Your task to perform on an android device: Open the calendar and show me this week's events Image 0: 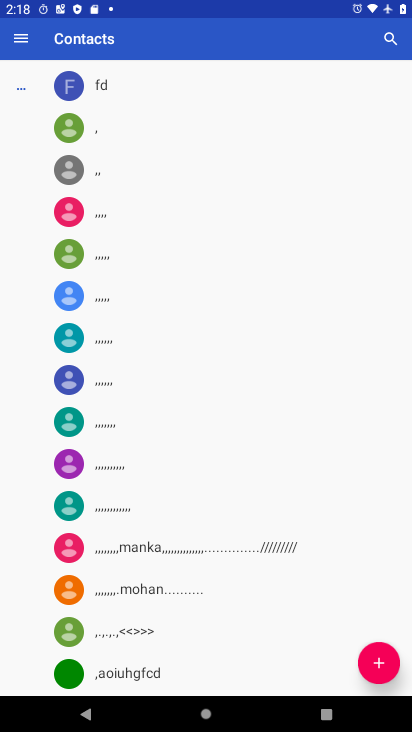
Step 0: press home button
Your task to perform on an android device: Open the calendar and show me this week's events Image 1: 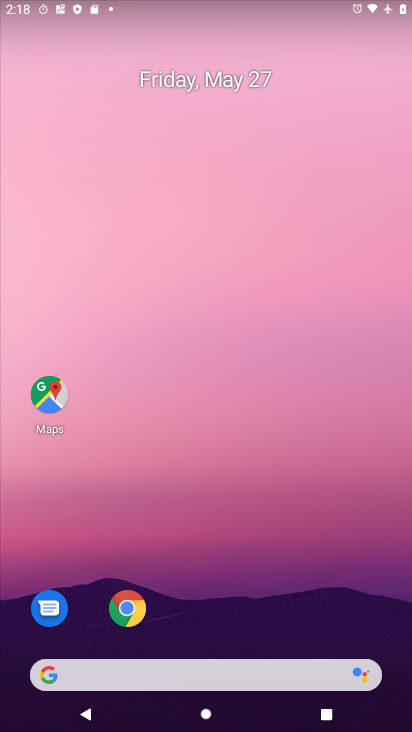
Step 1: drag from (178, 680) to (307, 186)
Your task to perform on an android device: Open the calendar and show me this week's events Image 2: 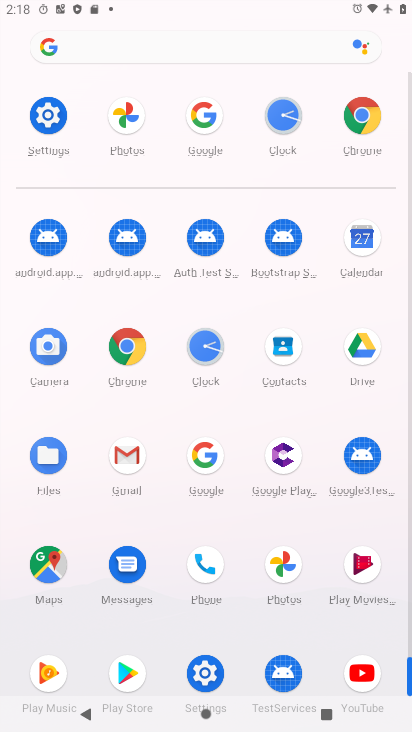
Step 2: click (366, 236)
Your task to perform on an android device: Open the calendar and show me this week's events Image 3: 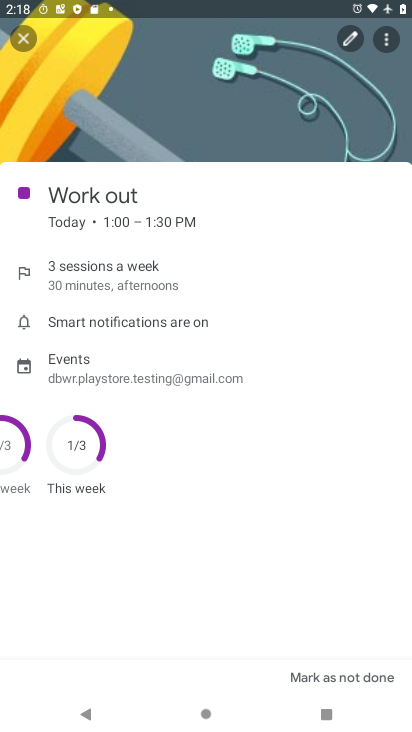
Step 3: click (29, 36)
Your task to perform on an android device: Open the calendar and show me this week's events Image 4: 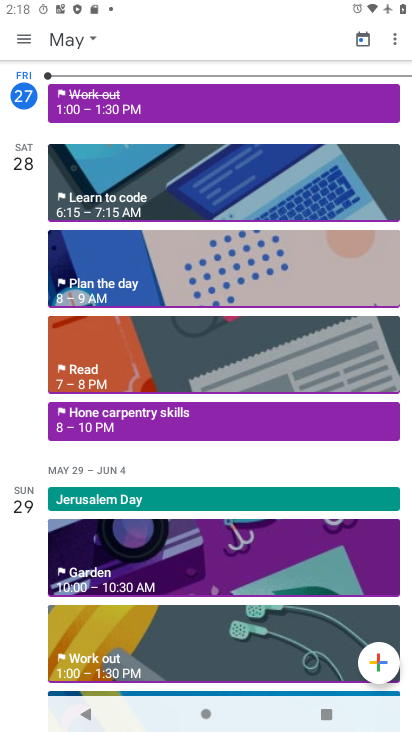
Step 4: click (69, 41)
Your task to perform on an android device: Open the calendar and show me this week's events Image 5: 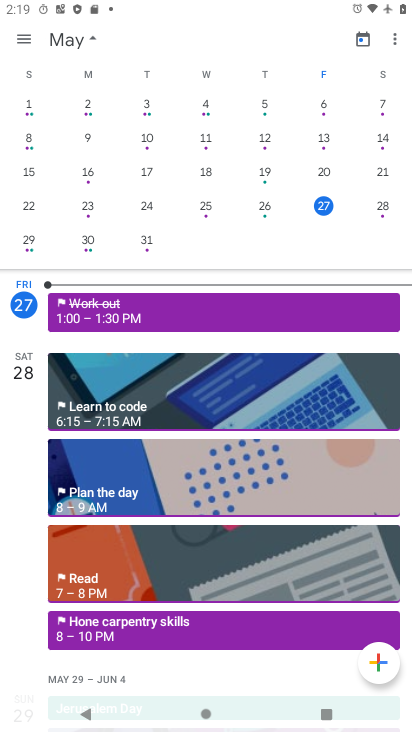
Step 5: click (320, 202)
Your task to perform on an android device: Open the calendar and show me this week's events Image 6: 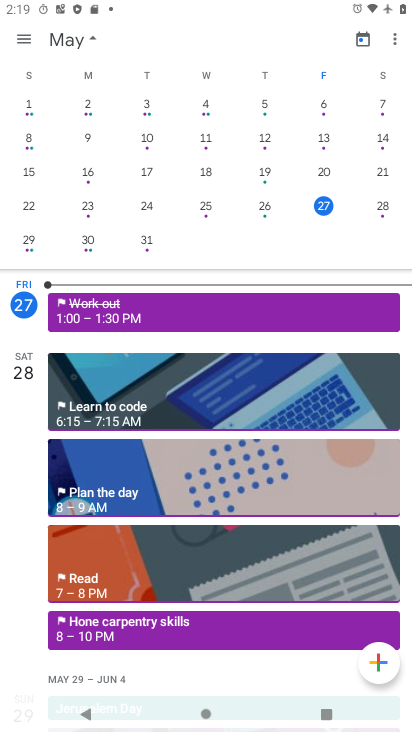
Step 6: click (24, 35)
Your task to perform on an android device: Open the calendar and show me this week's events Image 7: 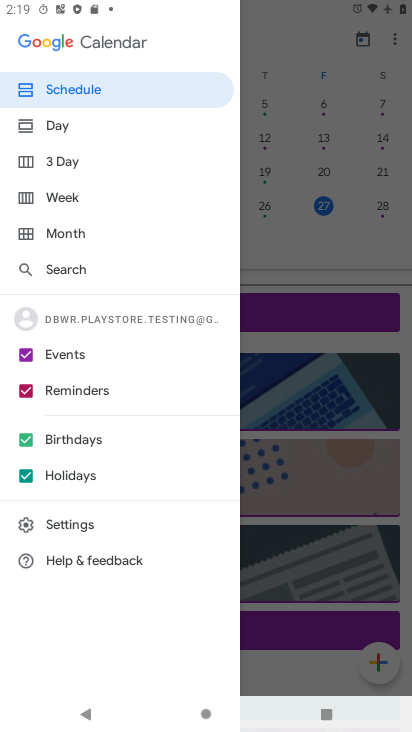
Step 7: click (71, 204)
Your task to perform on an android device: Open the calendar and show me this week's events Image 8: 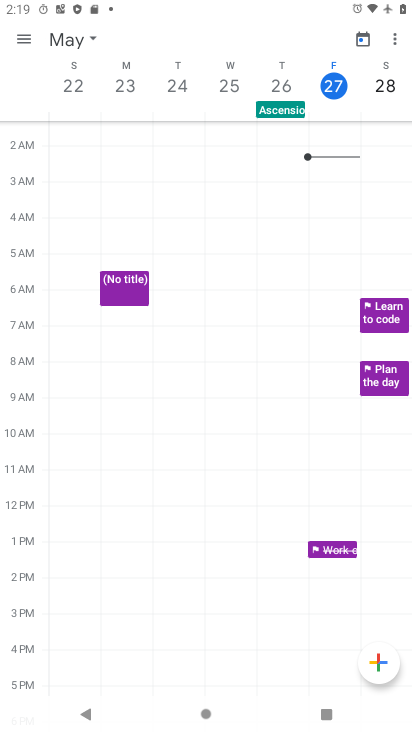
Step 8: click (22, 39)
Your task to perform on an android device: Open the calendar and show me this week's events Image 9: 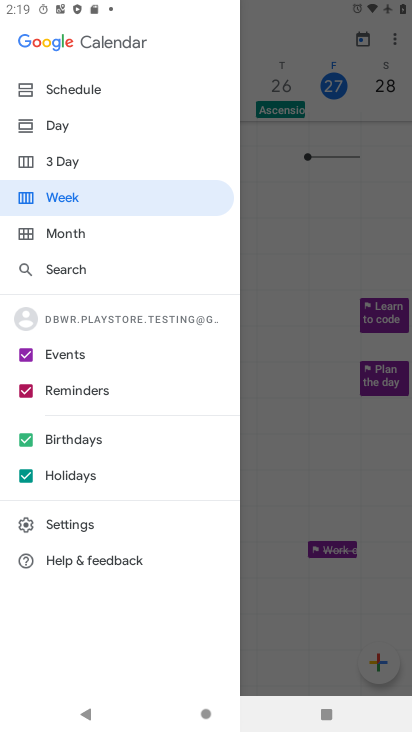
Step 9: click (85, 79)
Your task to perform on an android device: Open the calendar and show me this week's events Image 10: 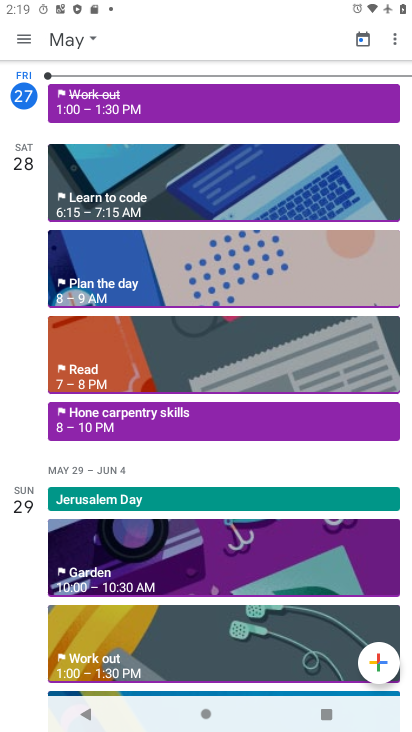
Step 10: click (128, 424)
Your task to perform on an android device: Open the calendar and show me this week's events Image 11: 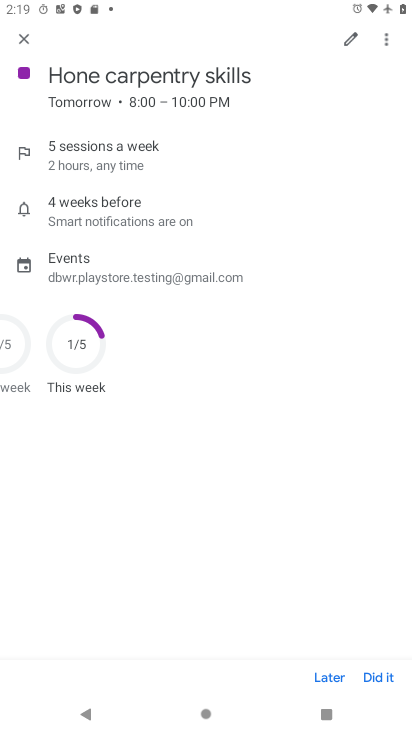
Step 11: task complete